Your task to perform on an android device: Go to Amazon Image 0: 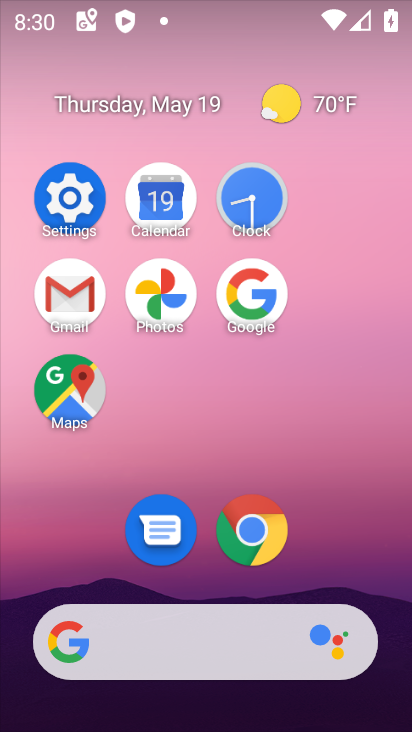
Step 0: click (243, 531)
Your task to perform on an android device: Go to Amazon Image 1: 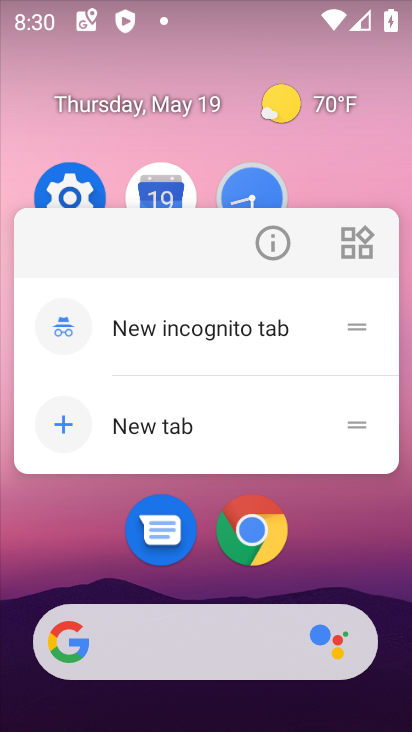
Step 1: click (264, 530)
Your task to perform on an android device: Go to Amazon Image 2: 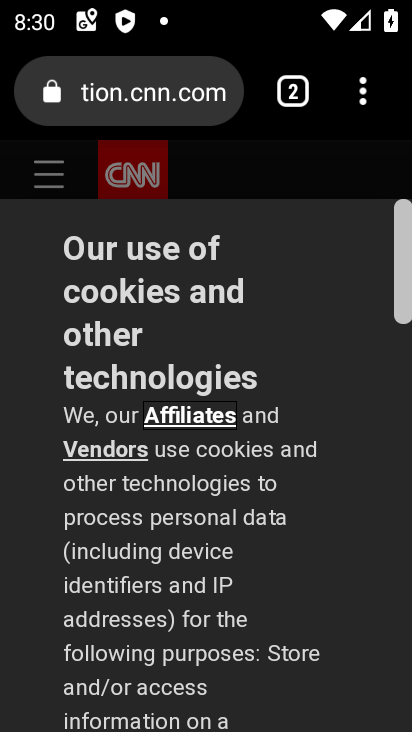
Step 2: click (295, 95)
Your task to perform on an android device: Go to Amazon Image 3: 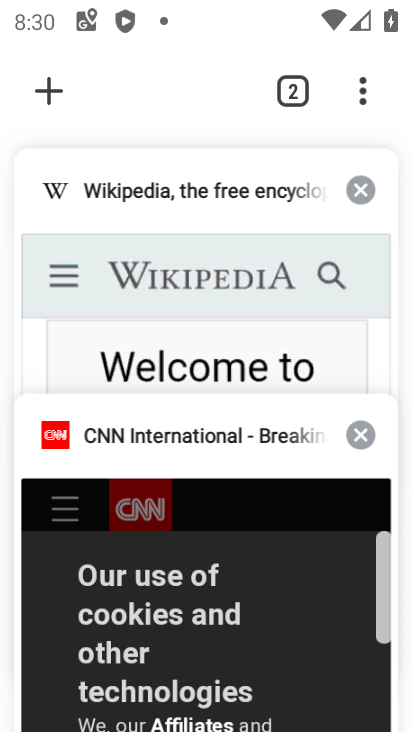
Step 3: click (59, 81)
Your task to perform on an android device: Go to Amazon Image 4: 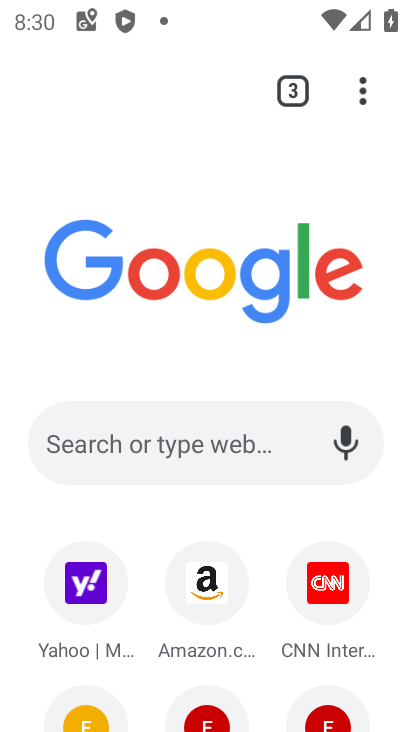
Step 4: click (221, 427)
Your task to perform on an android device: Go to Amazon Image 5: 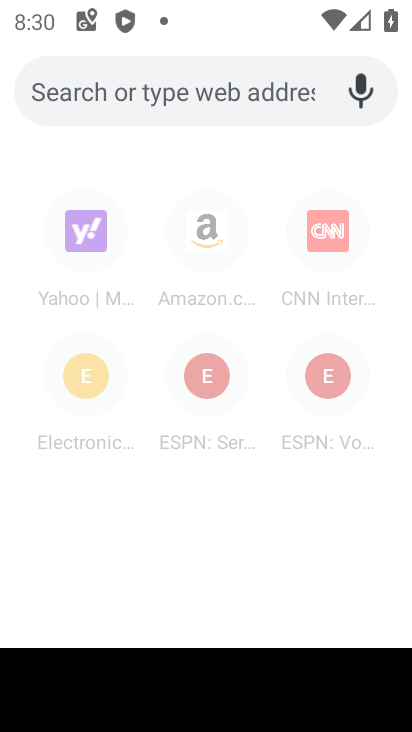
Step 5: type "amazon"
Your task to perform on an android device: Go to Amazon Image 6: 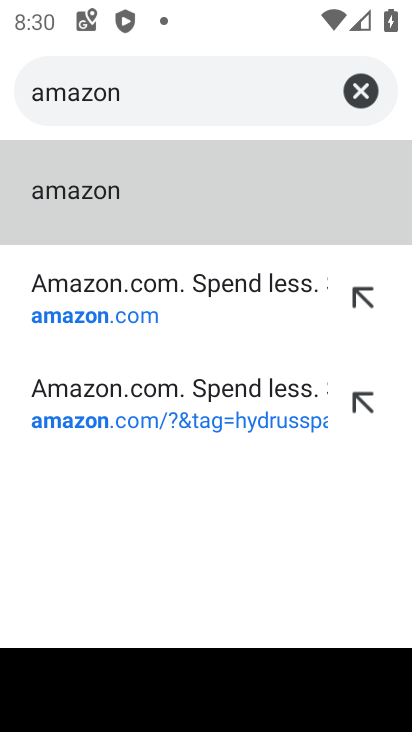
Step 6: click (81, 293)
Your task to perform on an android device: Go to Amazon Image 7: 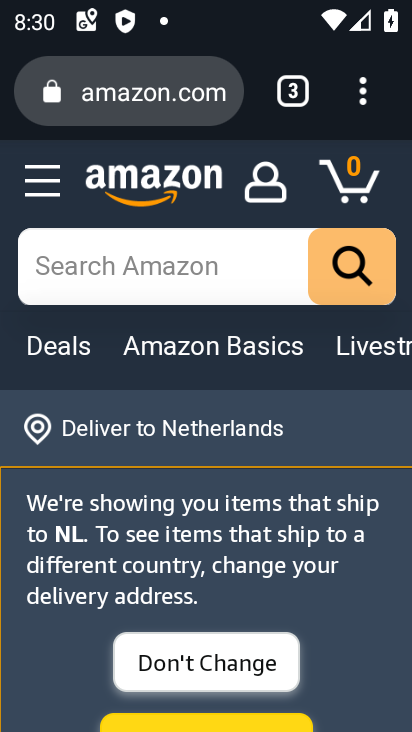
Step 7: task complete